Your task to perform on an android device: show emergency info Image 0: 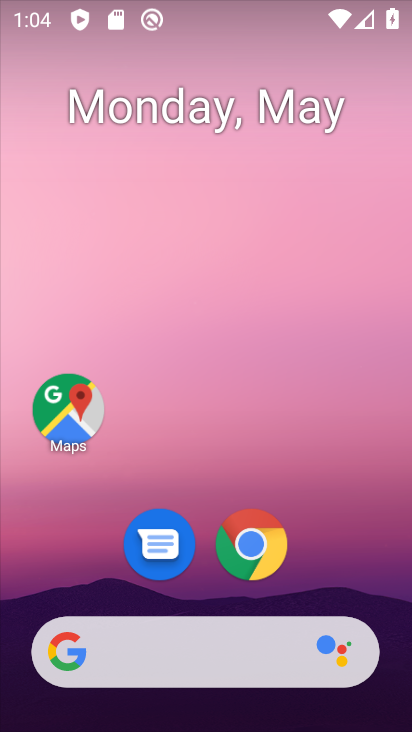
Step 0: drag from (365, 595) to (376, 216)
Your task to perform on an android device: show emergency info Image 1: 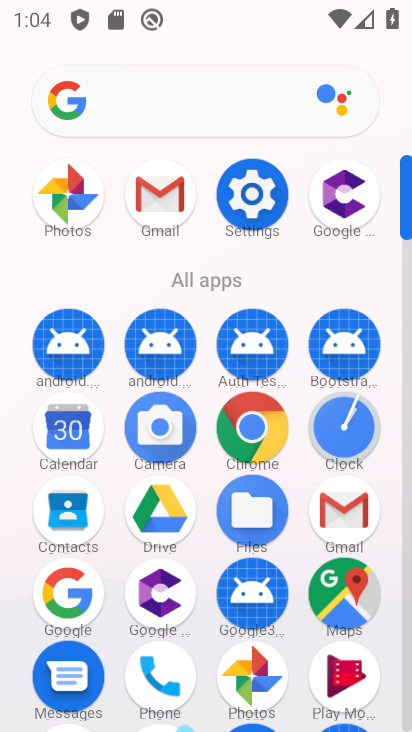
Step 1: click (260, 211)
Your task to perform on an android device: show emergency info Image 2: 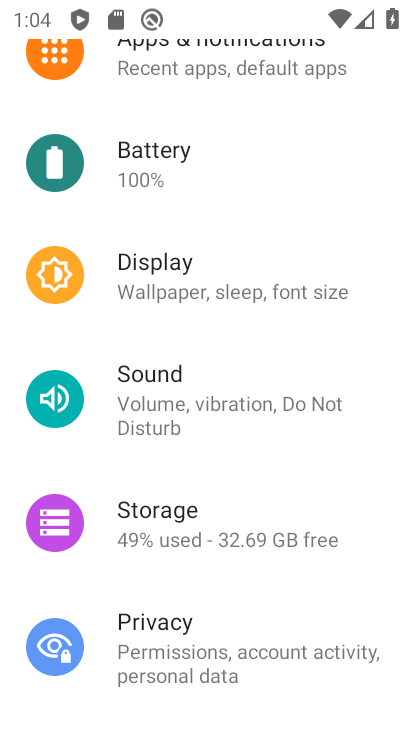
Step 2: drag from (331, 198) to (354, 321)
Your task to perform on an android device: show emergency info Image 3: 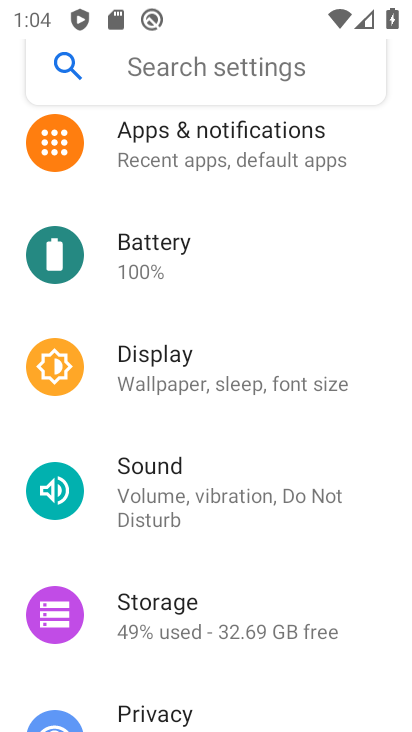
Step 3: drag from (374, 200) to (366, 400)
Your task to perform on an android device: show emergency info Image 4: 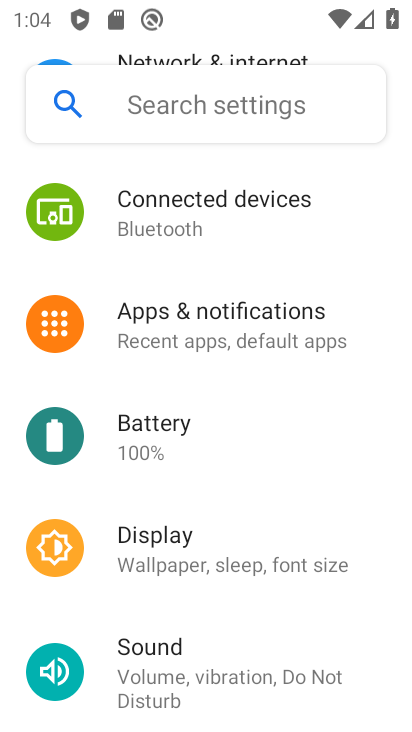
Step 4: drag from (373, 201) to (375, 391)
Your task to perform on an android device: show emergency info Image 5: 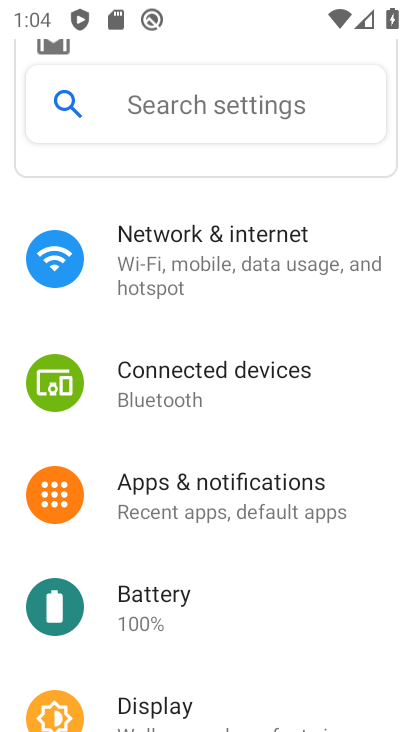
Step 5: drag from (355, 202) to (375, 397)
Your task to perform on an android device: show emergency info Image 6: 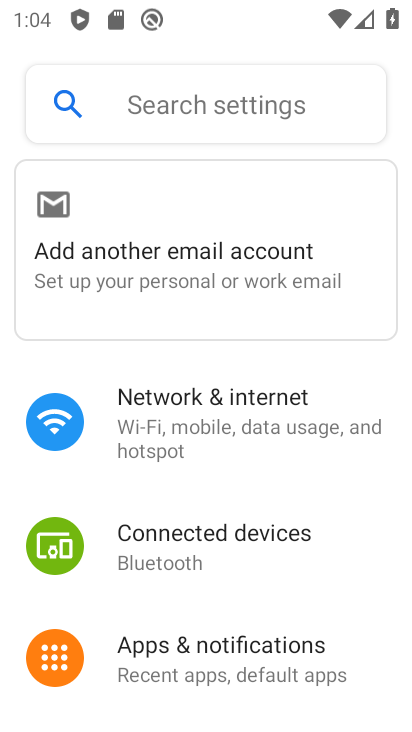
Step 6: drag from (362, 193) to (360, 427)
Your task to perform on an android device: show emergency info Image 7: 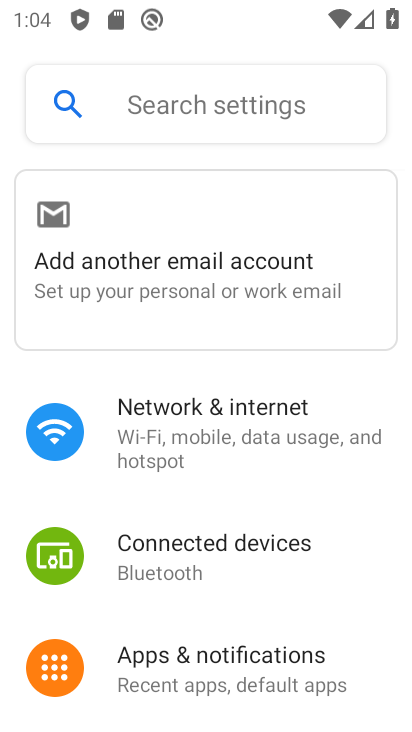
Step 7: drag from (351, 511) to (372, 363)
Your task to perform on an android device: show emergency info Image 8: 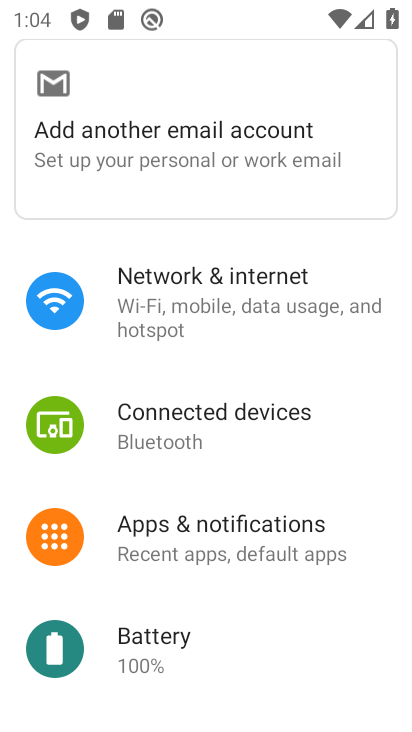
Step 8: drag from (352, 488) to (342, 335)
Your task to perform on an android device: show emergency info Image 9: 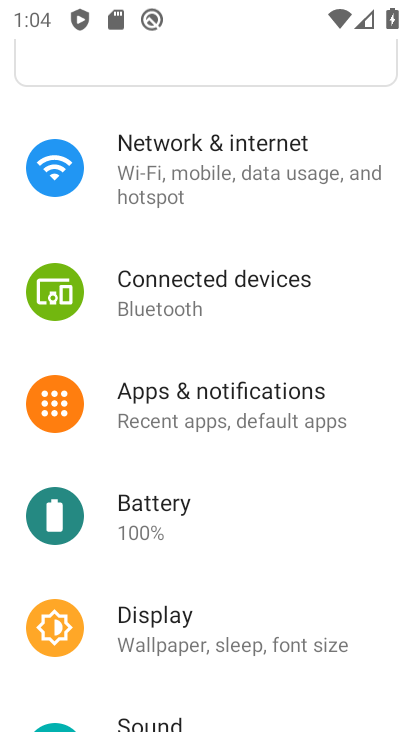
Step 9: drag from (352, 467) to (348, 351)
Your task to perform on an android device: show emergency info Image 10: 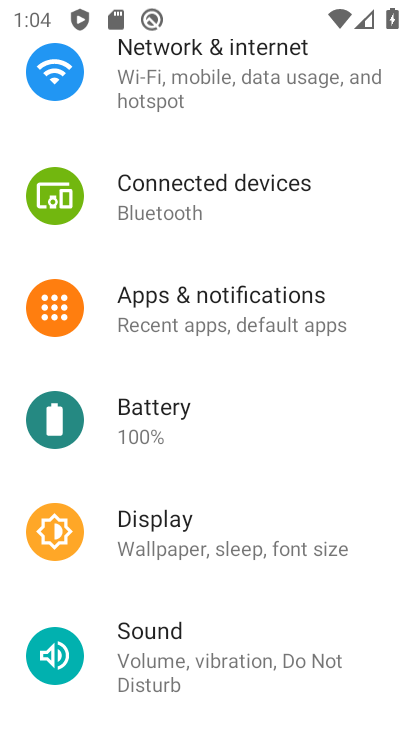
Step 10: drag from (332, 445) to (330, 295)
Your task to perform on an android device: show emergency info Image 11: 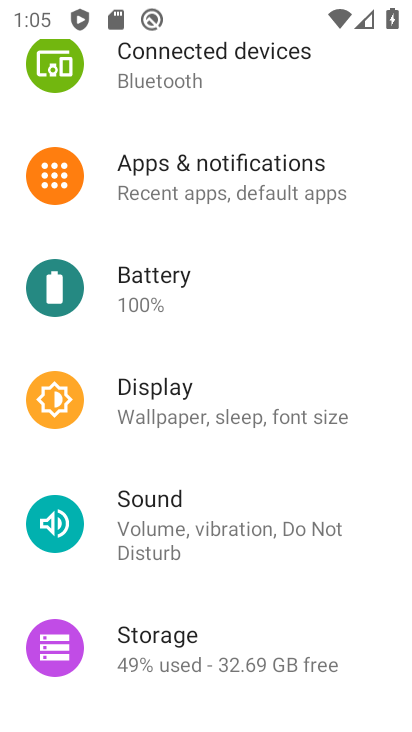
Step 11: drag from (345, 578) to (363, 386)
Your task to perform on an android device: show emergency info Image 12: 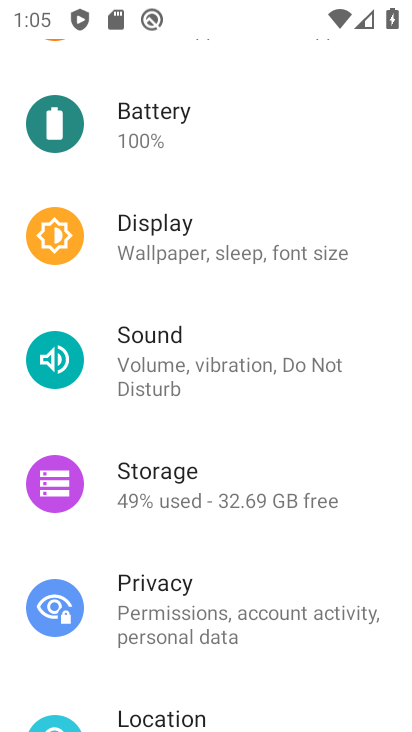
Step 12: drag from (331, 581) to (333, 410)
Your task to perform on an android device: show emergency info Image 13: 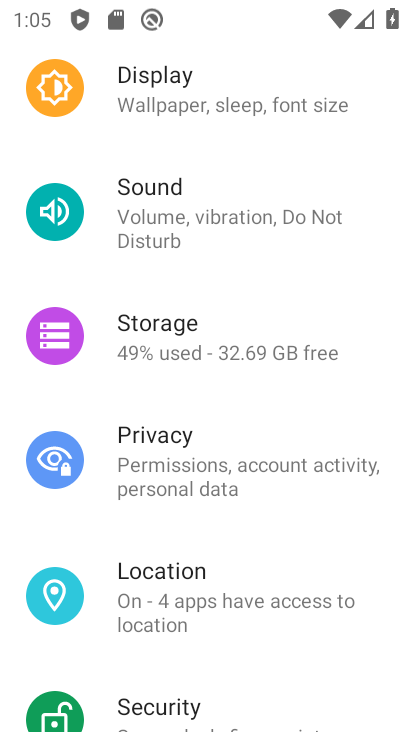
Step 13: drag from (324, 647) to (333, 416)
Your task to perform on an android device: show emergency info Image 14: 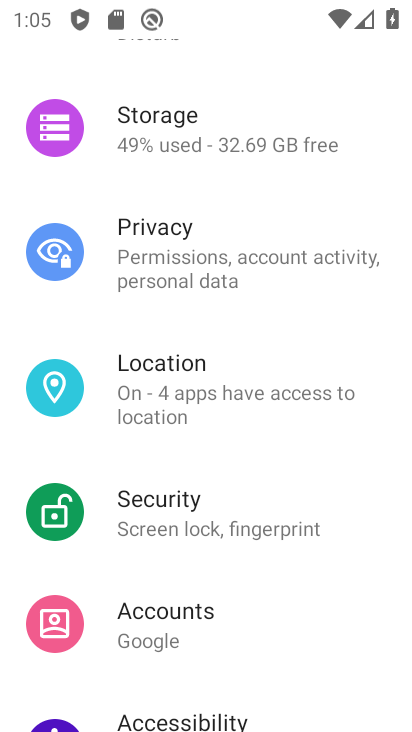
Step 14: drag from (329, 634) to (343, 465)
Your task to perform on an android device: show emergency info Image 15: 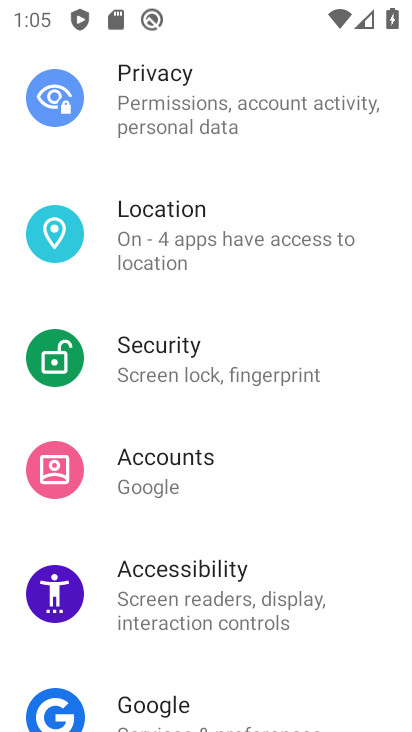
Step 15: drag from (349, 657) to (340, 458)
Your task to perform on an android device: show emergency info Image 16: 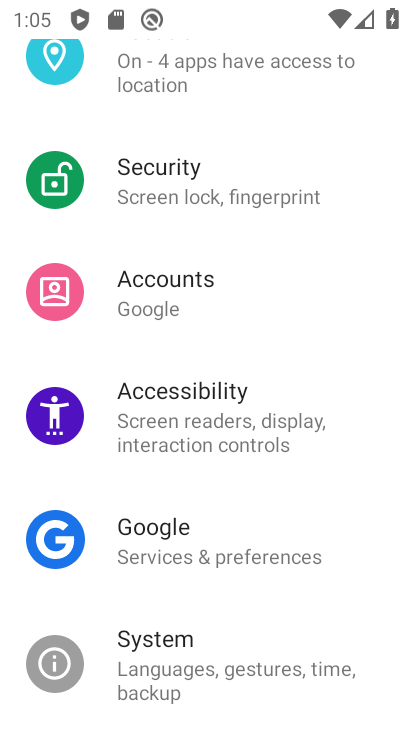
Step 16: drag from (331, 700) to (368, 439)
Your task to perform on an android device: show emergency info Image 17: 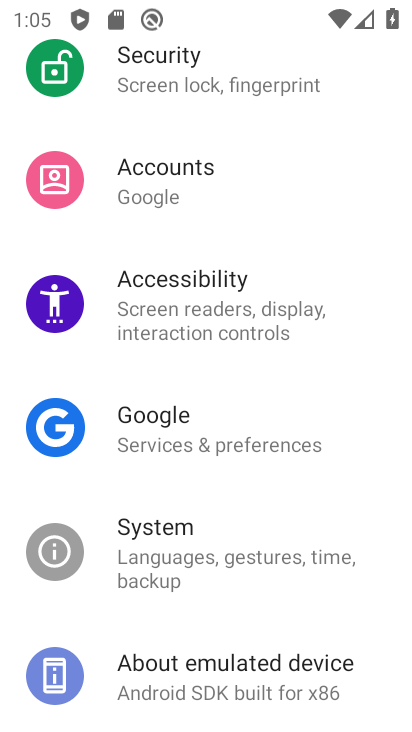
Step 17: click (331, 670)
Your task to perform on an android device: show emergency info Image 18: 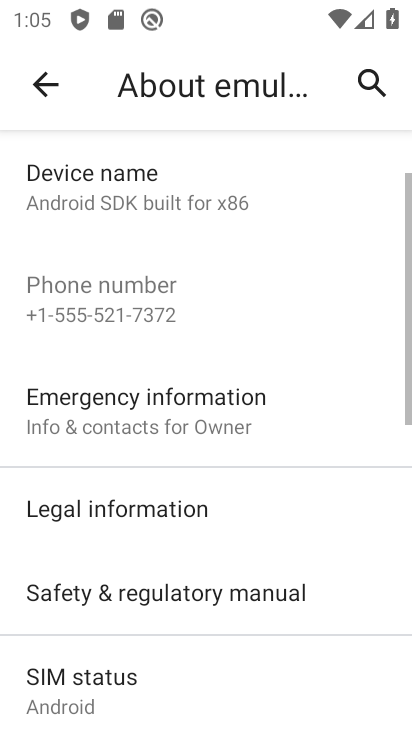
Step 18: click (262, 424)
Your task to perform on an android device: show emergency info Image 19: 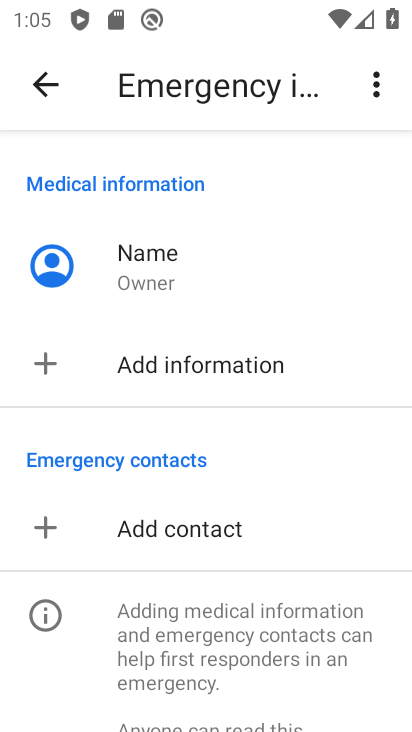
Step 19: task complete